Your task to perform on an android device: toggle improve location accuracy Image 0: 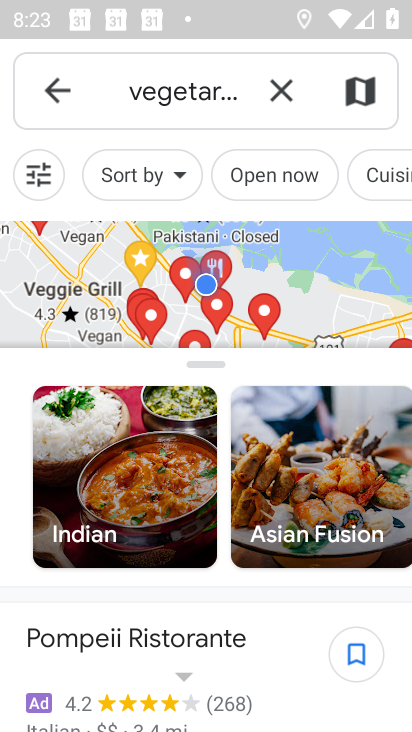
Step 0: press home button
Your task to perform on an android device: toggle improve location accuracy Image 1: 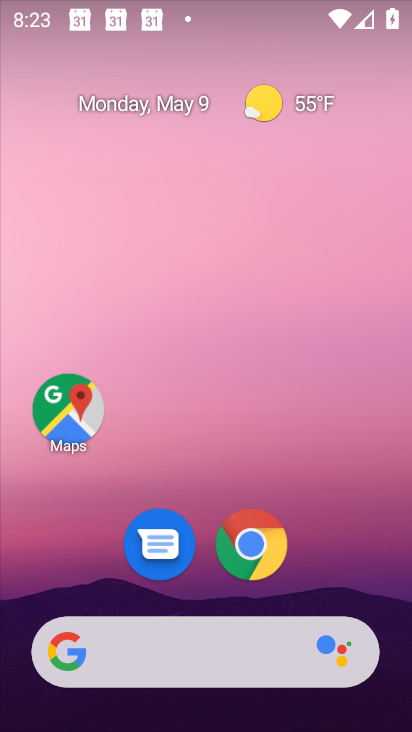
Step 1: drag from (216, 561) to (227, 200)
Your task to perform on an android device: toggle improve location accuracy Image 2: 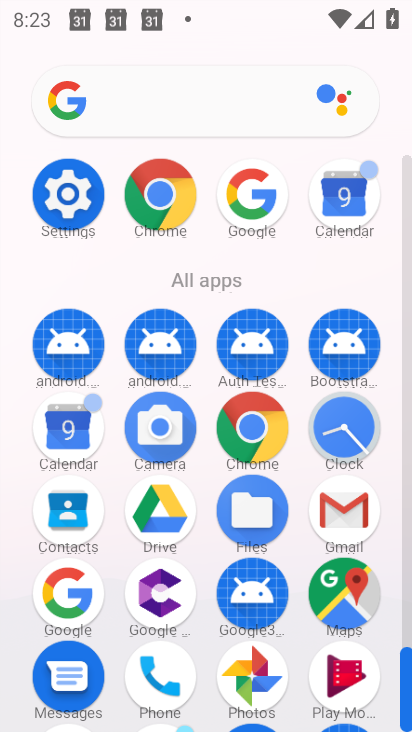
Step 2: click (80, 193)
Your task to perform on an android device: toggle improve location accuracy Image 3: 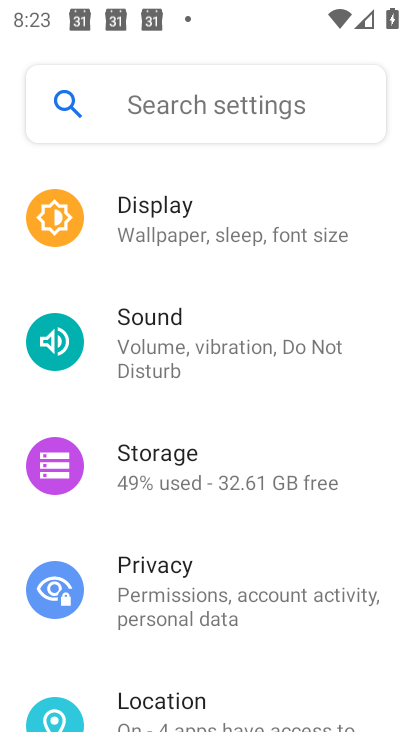
Step 3: drag from (208, 650) to (230, 315)
Your task to perform on an android device: toggle improve location accuracy Image 4: 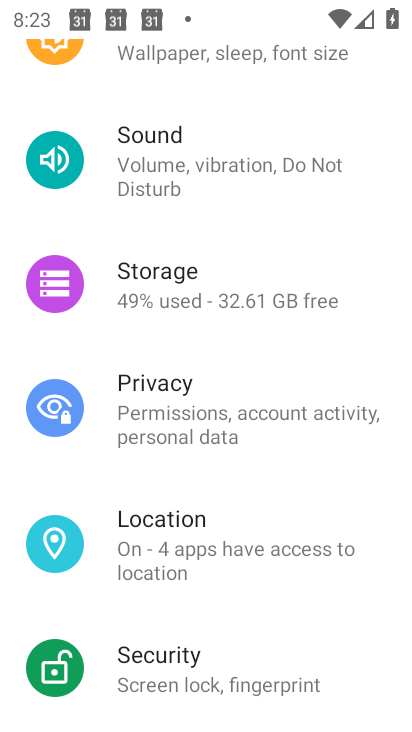
Step 4: click (194, 525)
Your task to perform on an android device: toggle improve location accuracy Image 5: 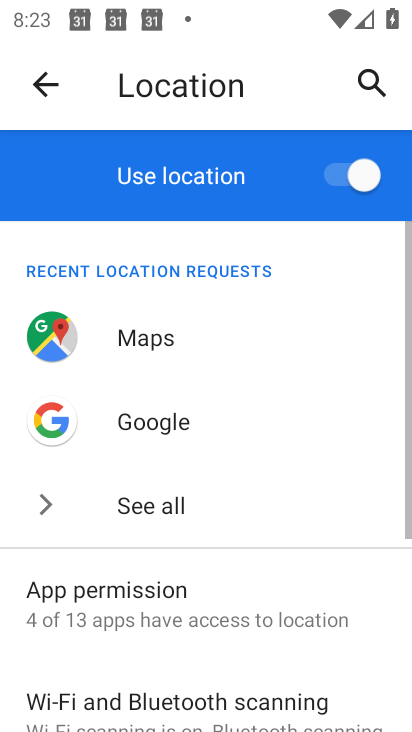
Step 5: drag from (224, 599) to (266, 347)
Your task to perform on an android device: toggle improve location accuracy Image 6: 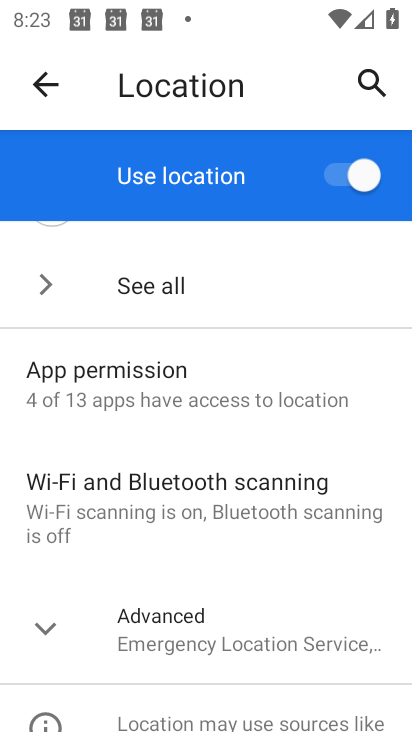
Step 6: drag from (264, 624) to (284, 448)
Your task to perform on an android device: toggle improve location accuracy Image 7: 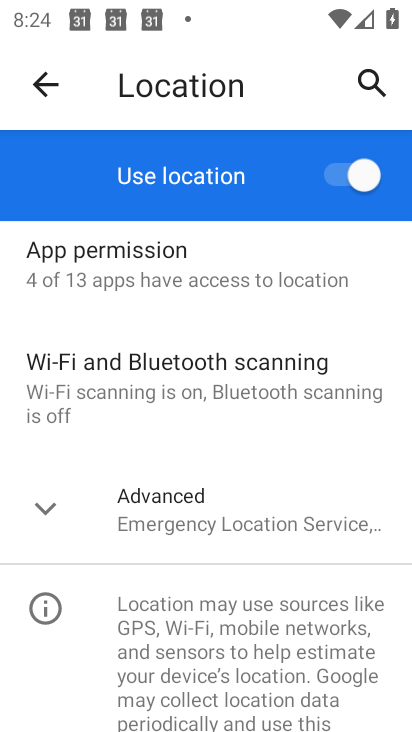
Step 7: click (172, 517)
Your task to perform on an android device: toggle improve location accuracy Image 8: 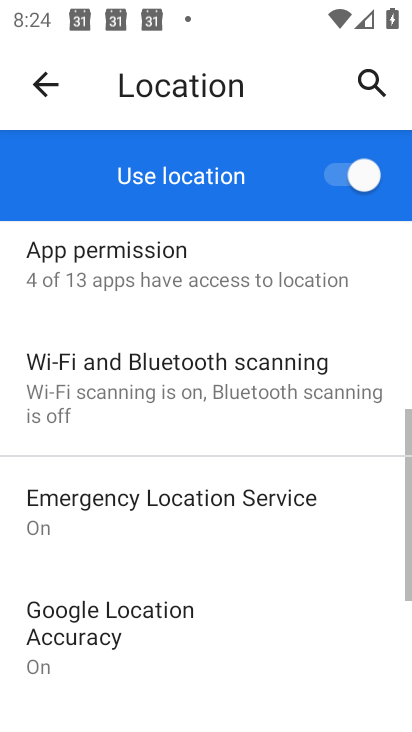
Step 8: drag from (187, 649) to (218, 343)
Your task to perform on an android device: toggle improve location accuracy Image 9: 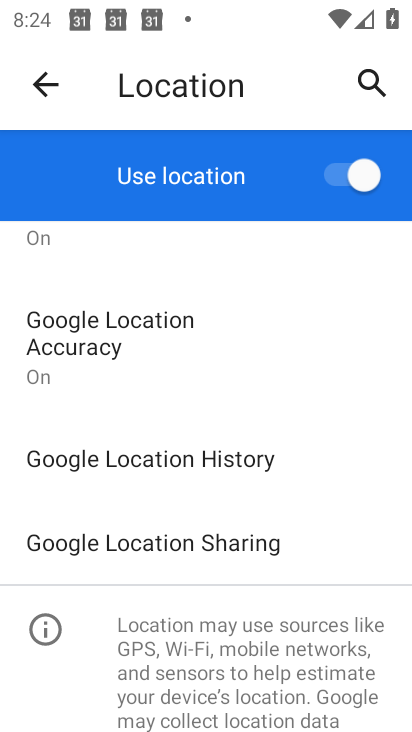
Step 9: click (125, 347)
Your task to perform on an android device: toggle improve location accuracy Image 10: 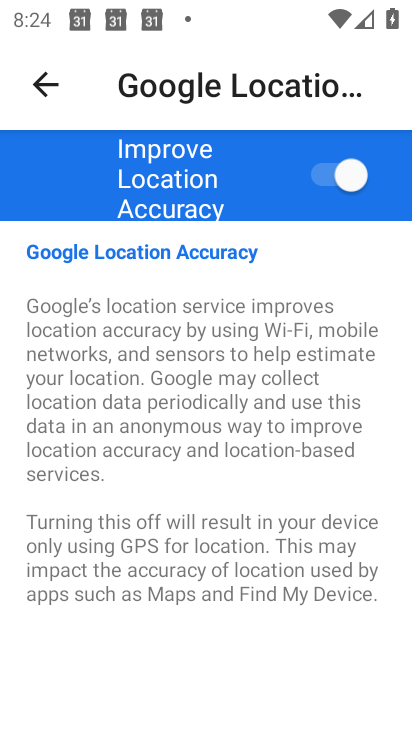
Step 10: click (309, 175)
Your task to perform on an android device: toggle improve location accuracy Image 11: 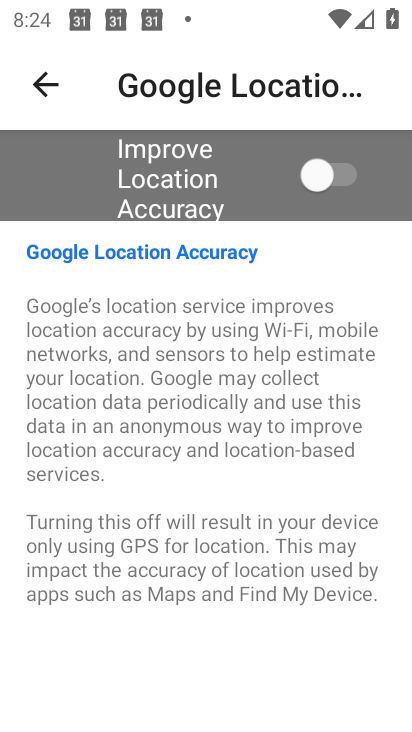
Step 11: task complete